Your task to perform on an android device: Go to eBay Image 0: 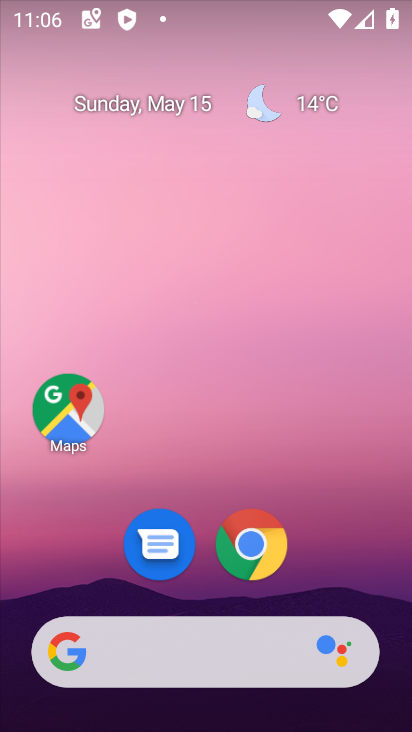
Step 0: click (254, 537)
Your task to perform on an android device: Go to eBay Image 1: 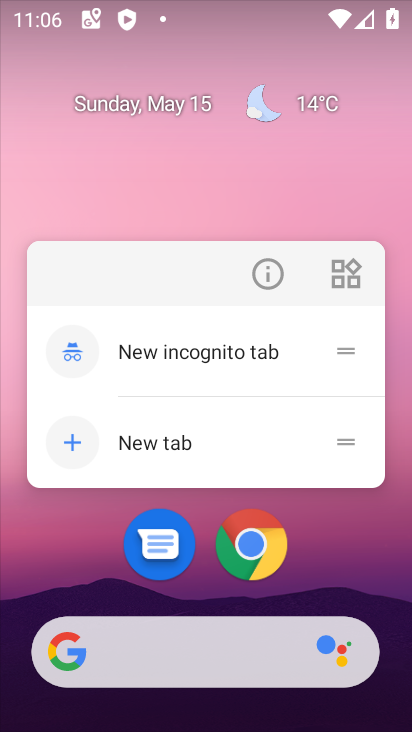
Step 1: click (251, 547)
Your task to perform on an android device: Go to eBay Image 2: 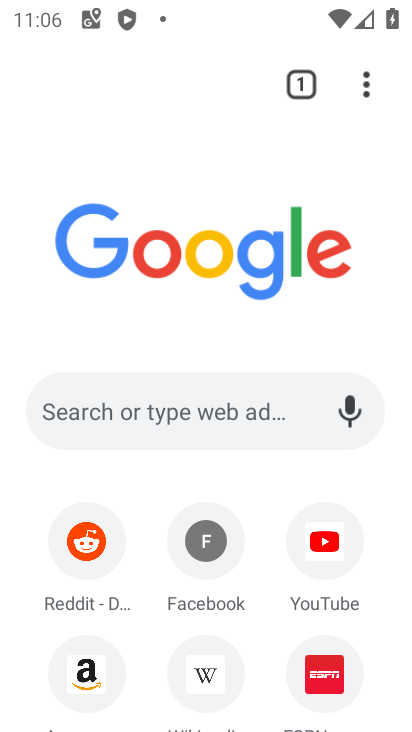
Step 2: click (197, 436)
Your task to perform on an android device: Go to eBay Image 3: 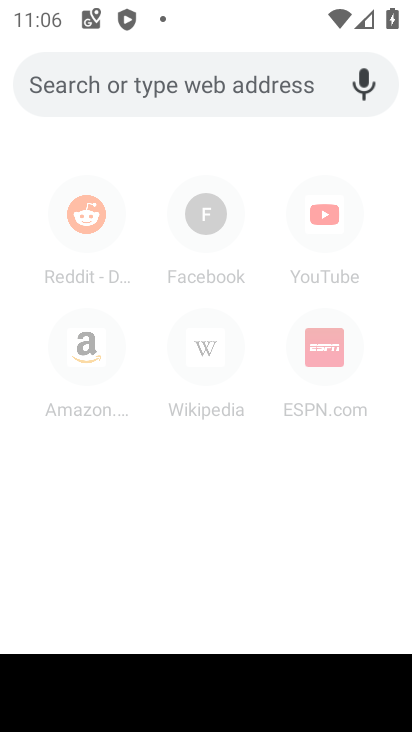
Step 3: type "eBay"
Your task to perform on an android device: Go to eBay Image 4: 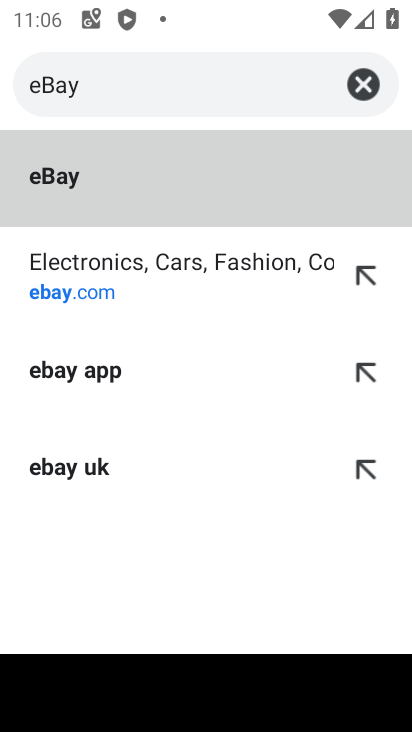
Step 4: click (101, 198)
Your task to perform on an android device: Go to eBay Image 5: 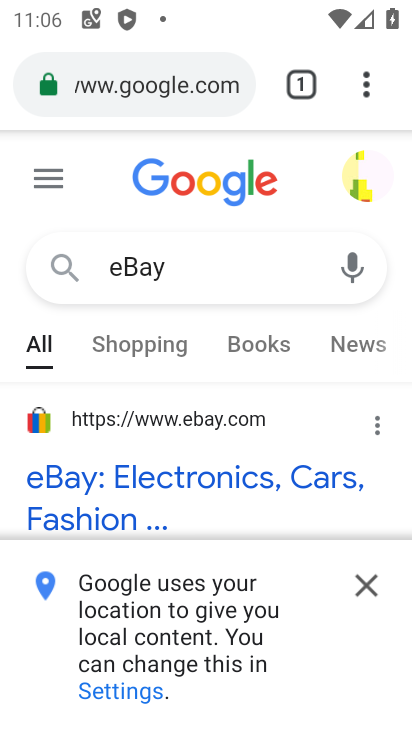
Step 5: click (371, 592)
Your task to perform on an android device: Go to eBay Image 6: 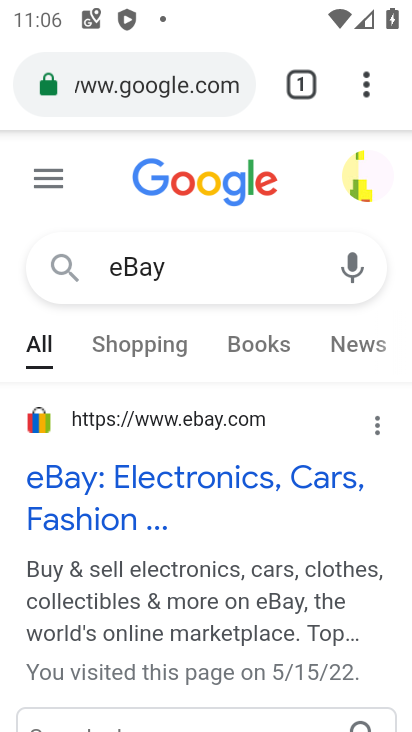
Step 6: click (134, 522)
Your task to perform on an android device: Go to eBay Image 7: 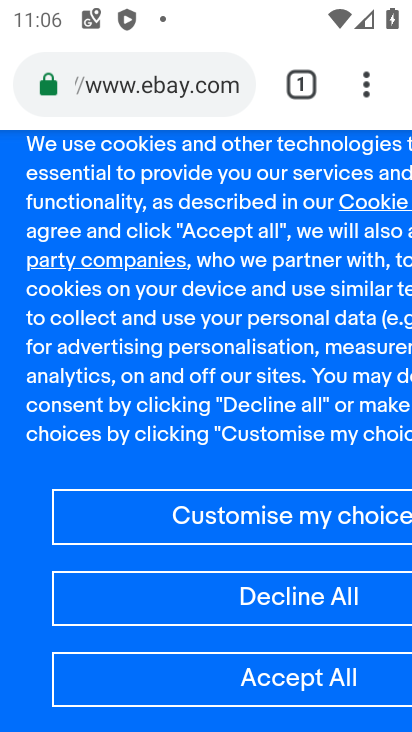
Step 7: click (273, 688)
Your task to perform on an android device: Go to eBay Image 8: 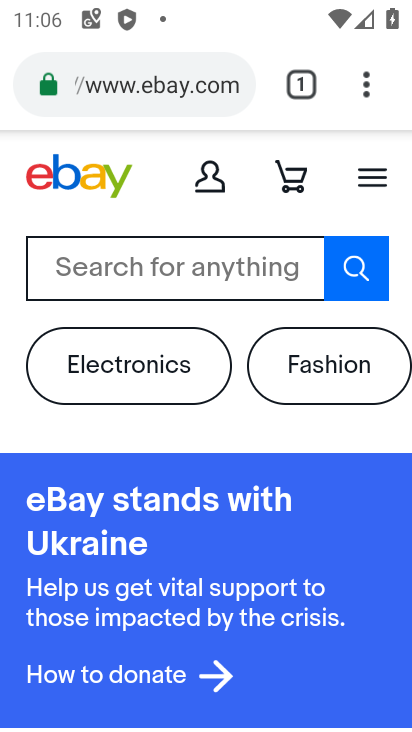
Step 8: task complete